Your task to perform on an android device: Go to eBay Image 0: 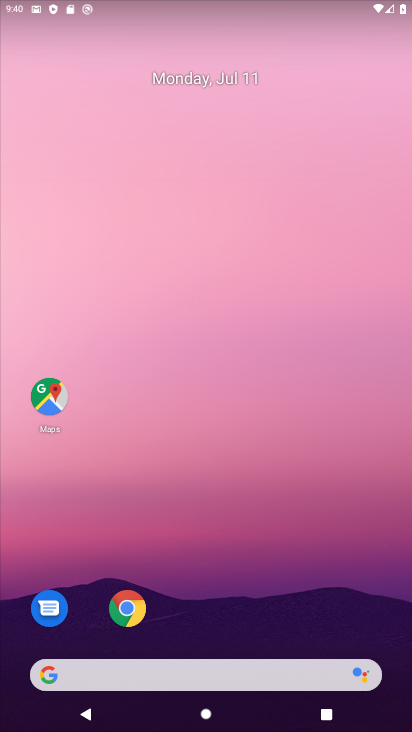
Step 0: drag from (236, 691) to (184, 156)
Your task to perform on an android device: Go to eBay Image 1: 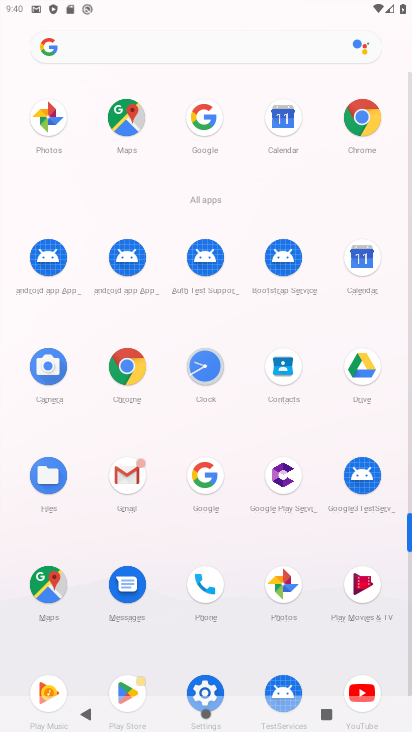
Step 1: click (133, 356)
Your task to perform on an android device: Go to eBay Image 2: 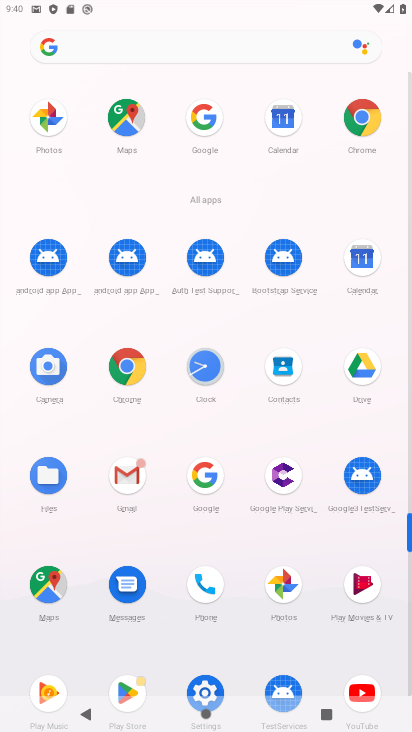
Step 2: click (138, 361)
Your task to perform on an android device: Go to eBay Image 3: 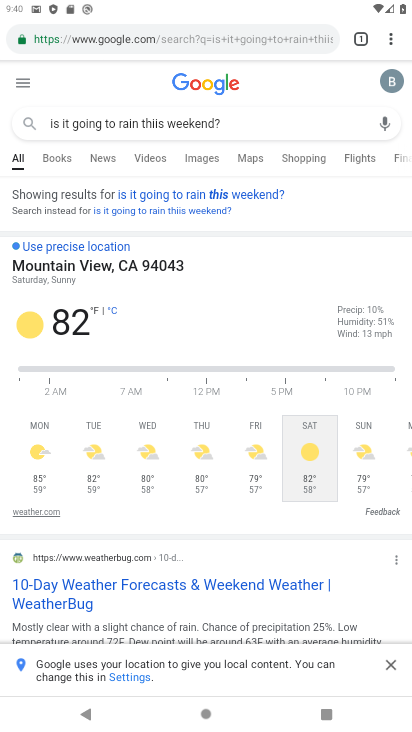
Step 3: task complete